Your task to perform on an android device: turn off translation in the chrome app Image 0: 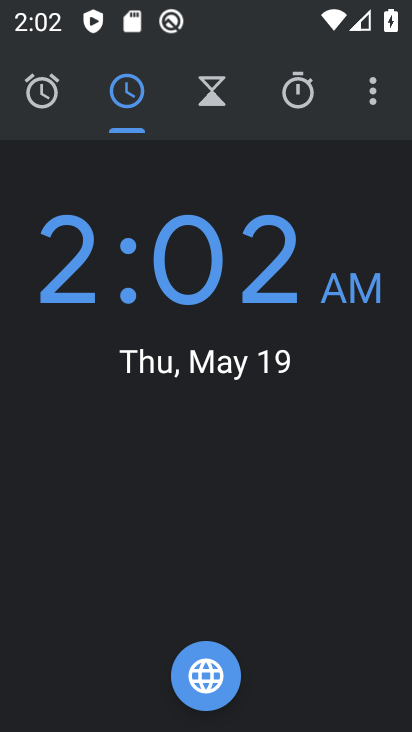
Step 0: press home button
Your task to perform on an android device: turn off translation in the chrome app Image 1: 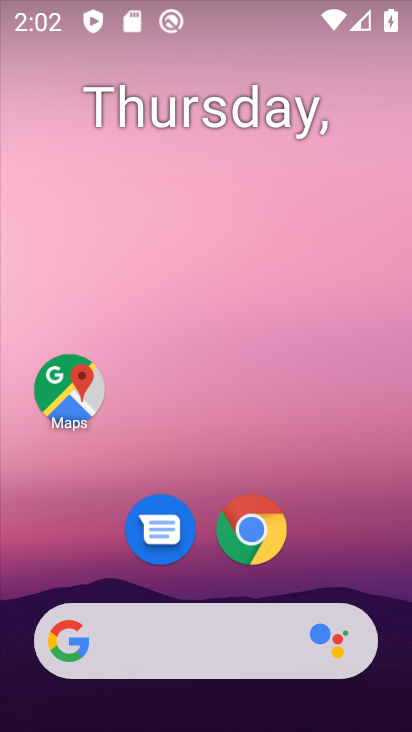
Step 1: click (251, 533)
Your task to perform on an android device: turn off translation in the chrome app Image 2: 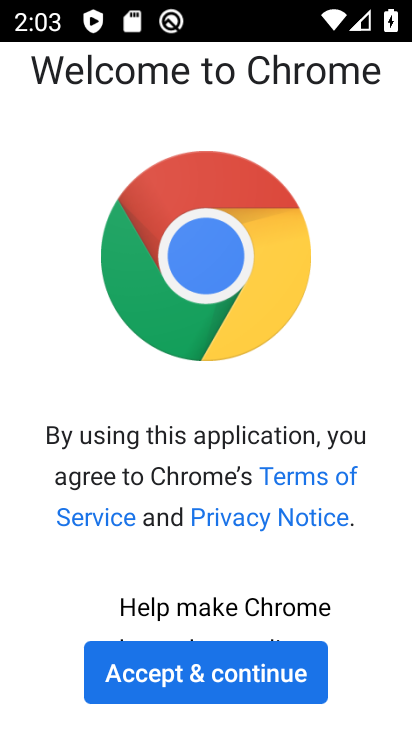
Step 2: click (236, 681)
Your task to perform on an android device: turn off translation in the chrome app Image 3: 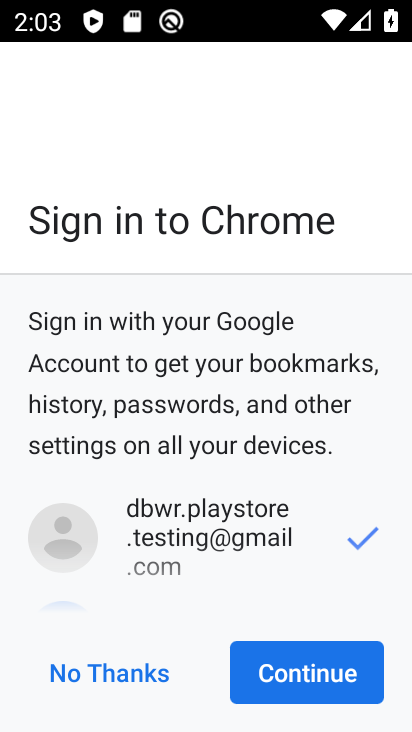
Step 3: click (313, 686)
Your task to perform on an android device: turn off translation in the chrome app Image 4: 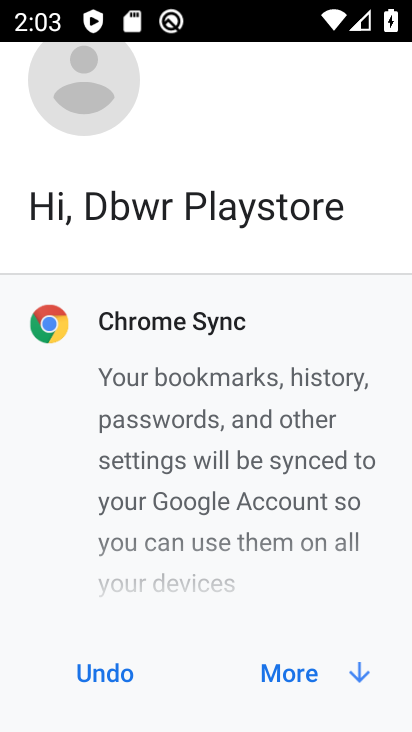
Step 4: click (305, 677)
Your task to perform on an android device: turn off translation in the chrome app Image 5: 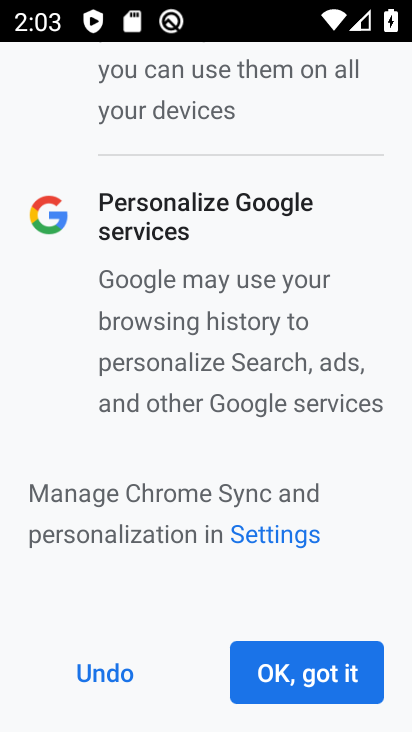
Step 5: click (284, 684)
Your task to perform on an android device: turn off translation in the chrome app Image 6: 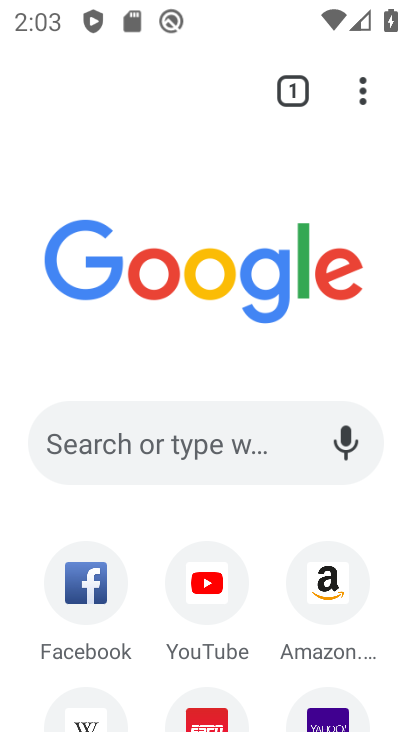
Step 6: drag from (355, 88) to (229, 562)
Your task to perform on an android device: turn off translation in the chrome app Image 7: 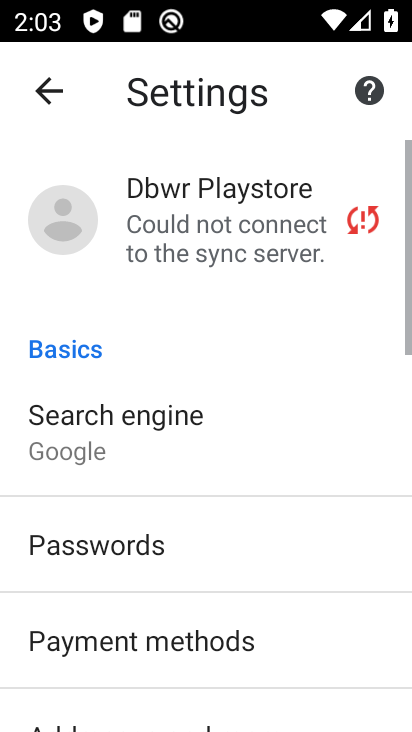
Step 7: drag from (216, 596) to (255, 122)
Your task to perform on an android device: turn off translation in the chrome app Image 8: 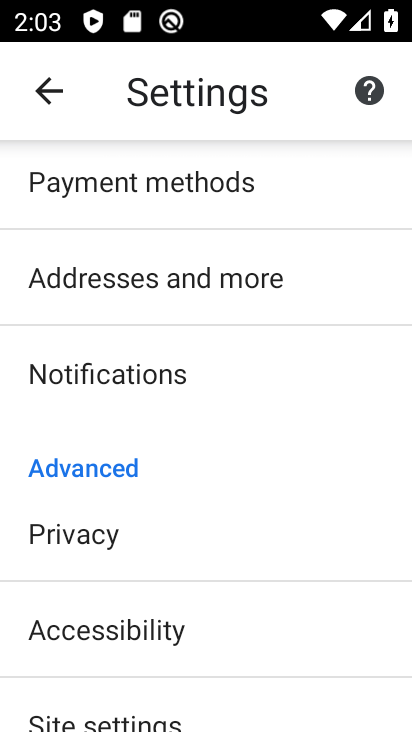
Step 8: drag from (227, 589) to (254, 305)
Your task to perform on an android device: turn off translation in the chrome app Image 9: 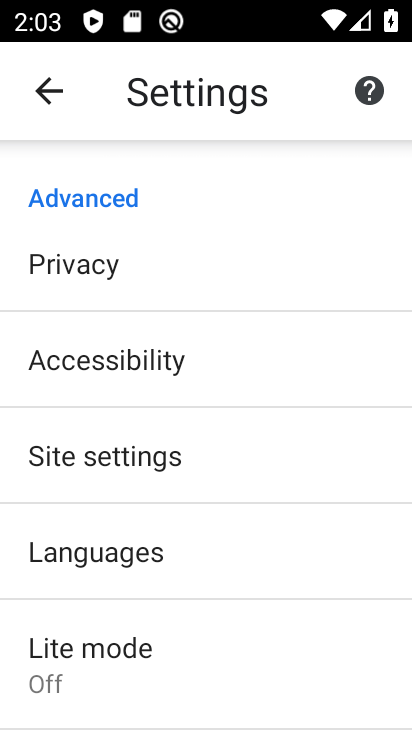
Step 9: click (155, 550)
Your task to perform on an android device: turn off translation in the chrome app Image 10: 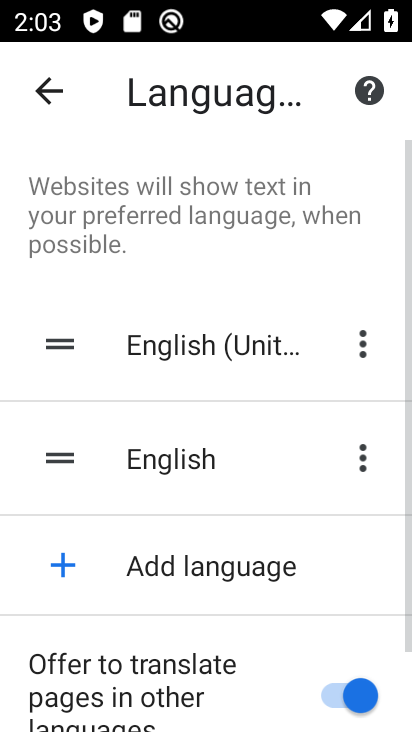
Step 10: drag from (241, 648) to (347, 321)
Your task to perform on an android device: turn off translation in the chrome app Image 11: 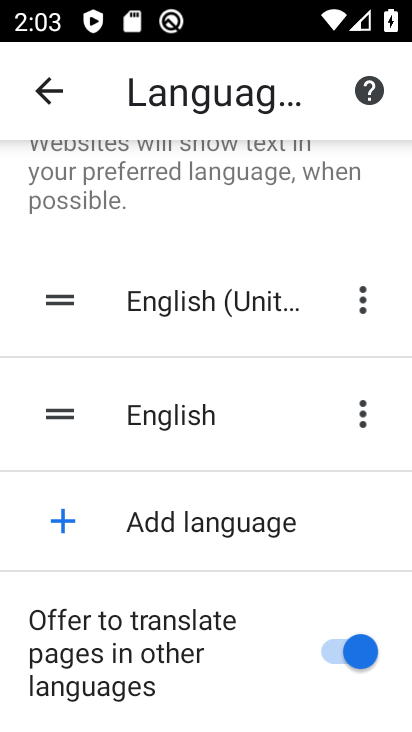
Step 11: click (328, 657)
Your task to perform on an android device: turn off translation in the chrome app Image 12: 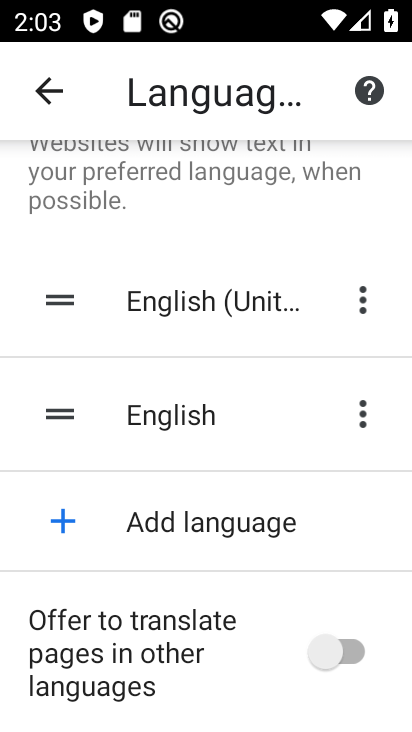
Step 12: task complete